Your task to perform on an android device: turn pop-ups off in chrome Image 0: 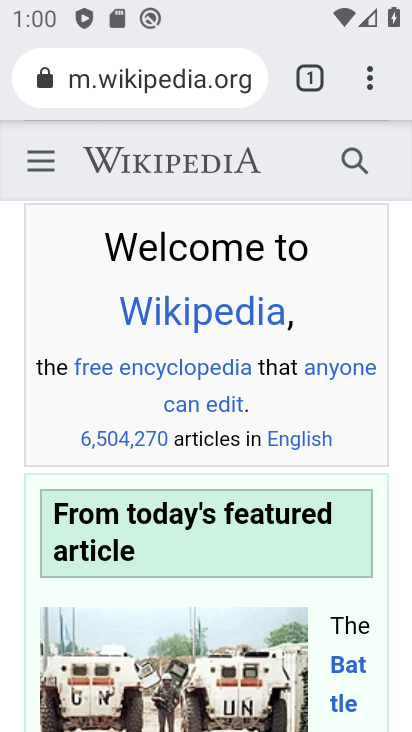
Step 0: press home button
Your task to perform on an android device: turn pop-ups off in chrome Image 1: 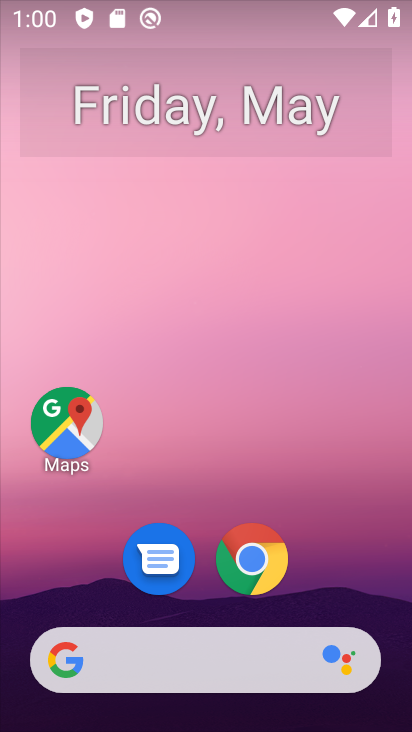
Step 1: drag from (351, 412) to (347, 214)
Your task to perform on an android device: turn pop-ups off in chrome Image 2: 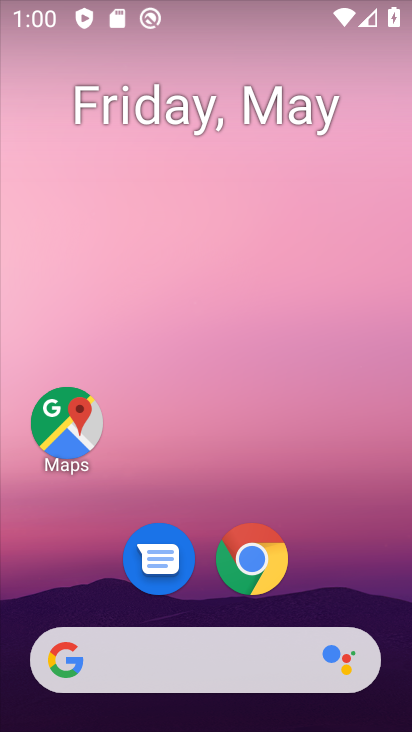
Step 2: drag from (351, 580) to (324, 125)
Your task to perform on an android device: turn pop-ups off in chrome Image 3: 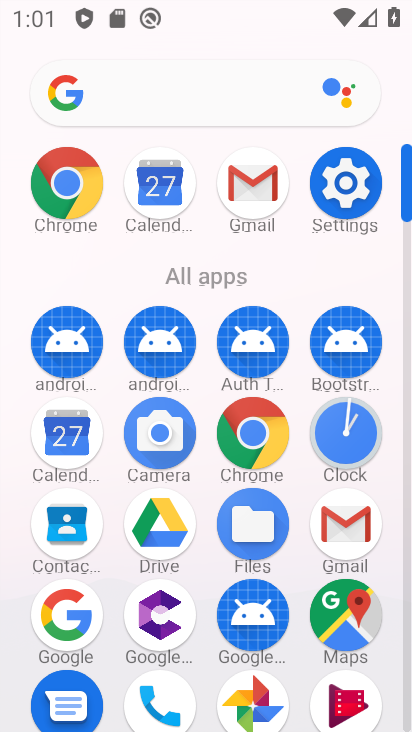
Step 3: click (248, 450)
Your task to perform on an android device: turn pop-ups off in chrome Image 4: 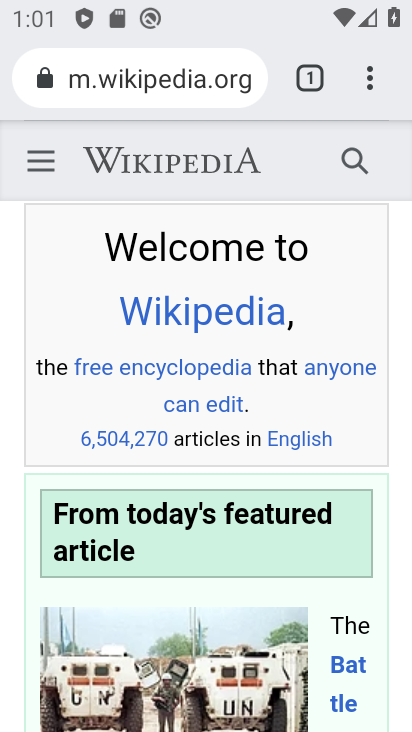
Step 4: drag from (217, 659) to (274, 252)
Your task to perform on an android device: turn pop-ups off in chrome Image 5: 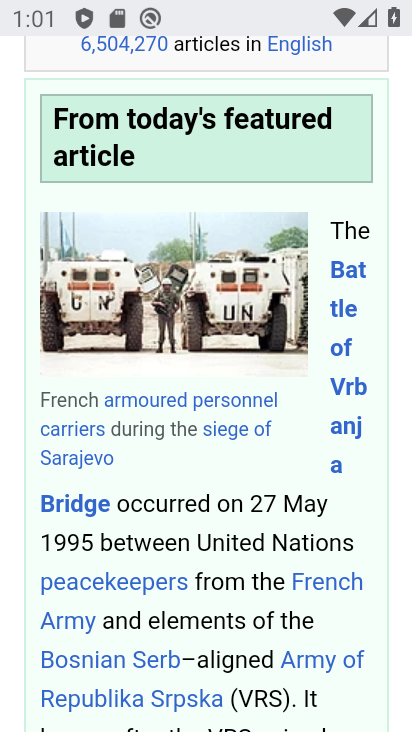
Step 5: drag from (322, 228) to (235, 664)
Your task to perform on an android device: turn pop-ups off in chrome Image 6: 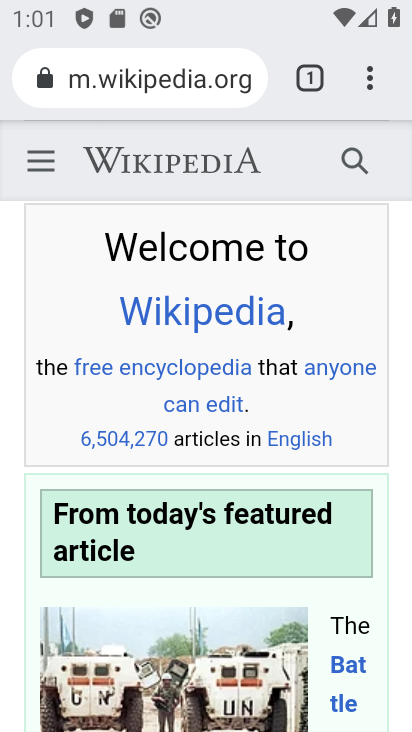
Step 6: drag from (370, 76) to (247, 635)
Your task to perform on an android device: turn pop-ups off in chrome Image 7: 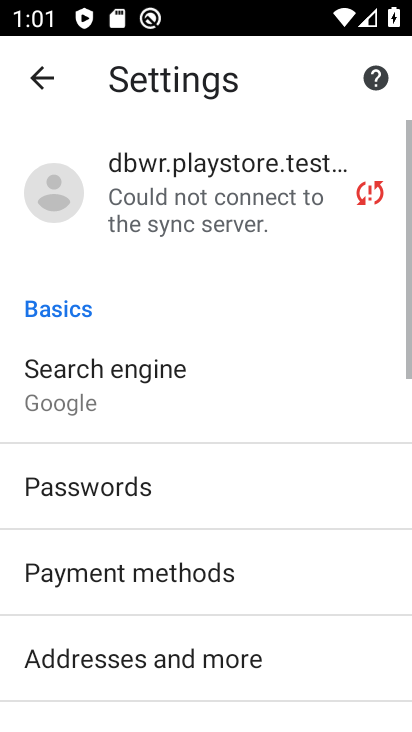
Step 7: drag from (300, 680) to (326, 395)
Your task to perform on an android device: turn pop-ups off in chrome Image 8: 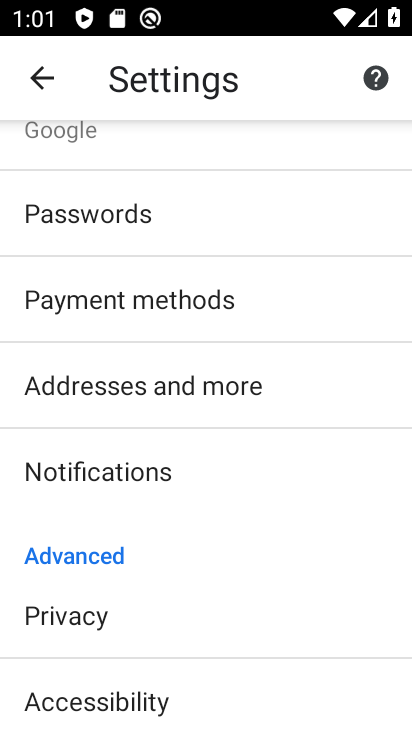
Step 8: drag from (295, 533) to (285, 250)
Your task to perform on an android device: turn pop-ups off in chrome Image 9: 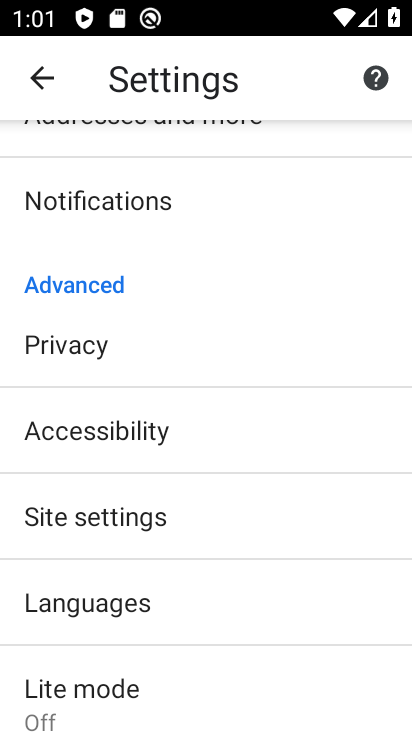
Step 9: drag from (297, 612) to (334, 347)
Your task to perform on an android device: turn pop-ups off in chrome Image 10: 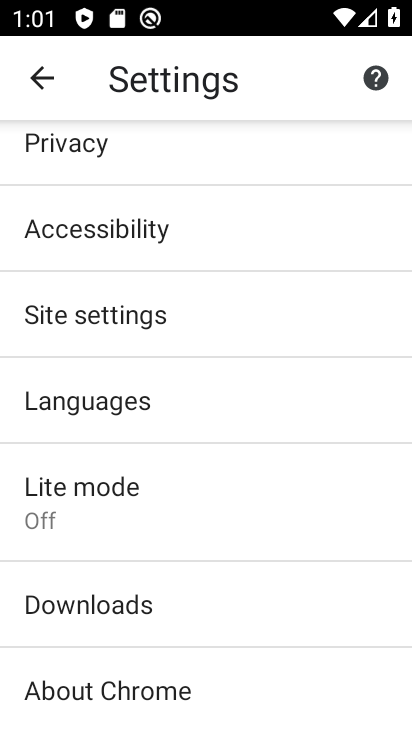
Step 10: click (159, 306)
Your task to perform on an android device: turn pop-ups off in chrome Image 11: 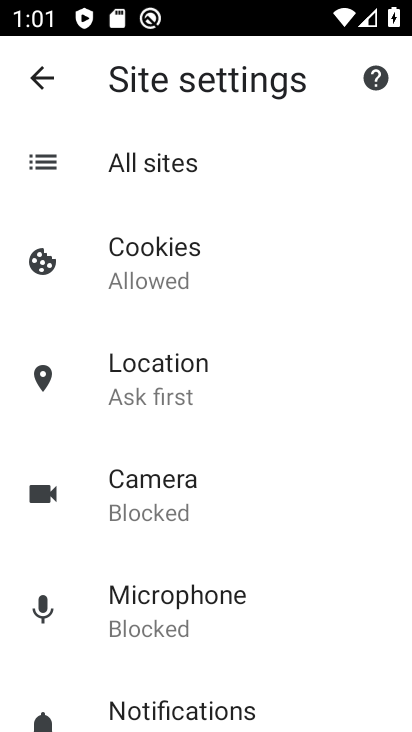
Step 11: drag from (268, 656) to (296, 329)
Your task to perform on an android device: turn pop-ups off in chrome Image 12: 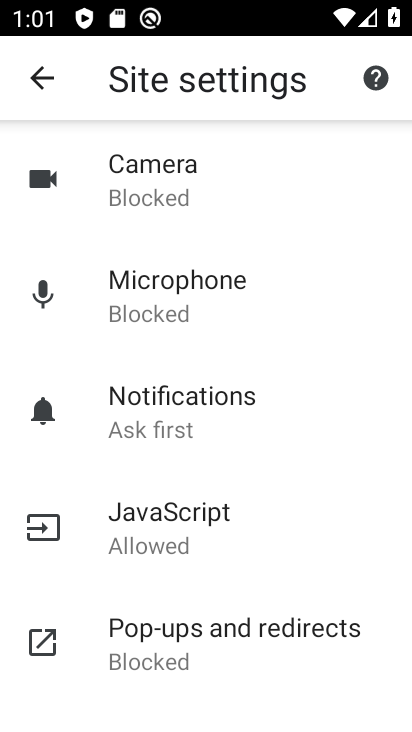
Step 12: click (265, 641)
Your task to perform on an android device: turn pop-ups off in chrome Image 13: 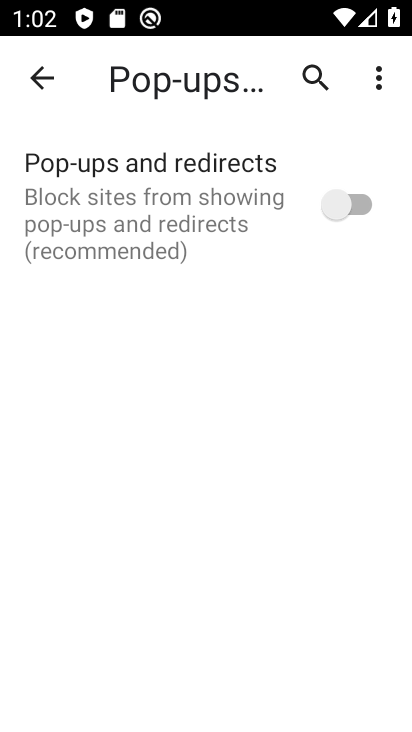
Step 13: task complete